Your task to perform on an android device: turn off airplane mode Image 0: 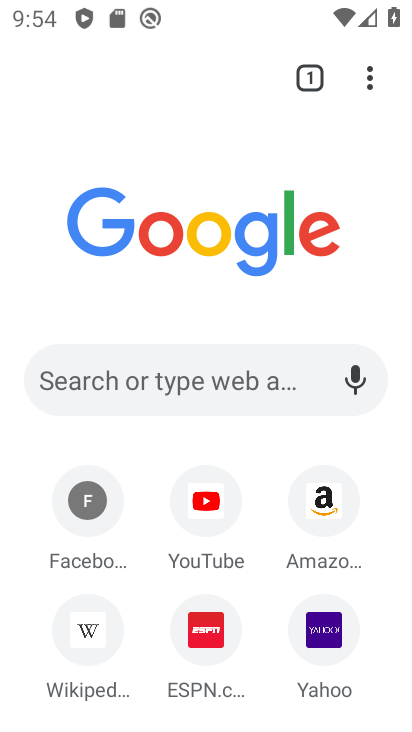
Step 0: drag from (212, 16) to (203, 536)
Your task to perform on an android device: turn off airplane mode Image 1: 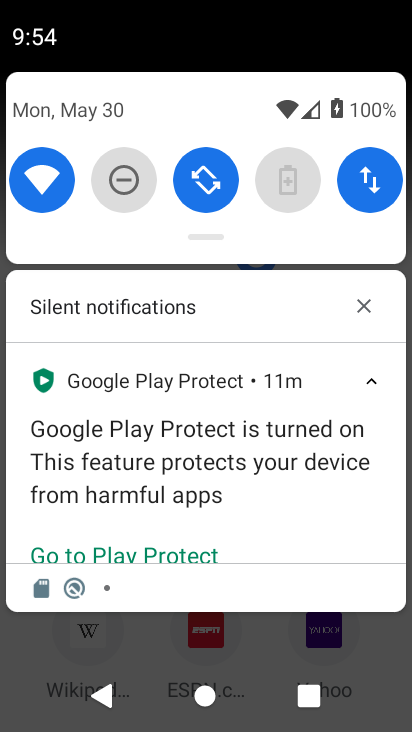
Step 1: task complete